Your task to perform on an android device: turn off improve location accuracy Image 0: 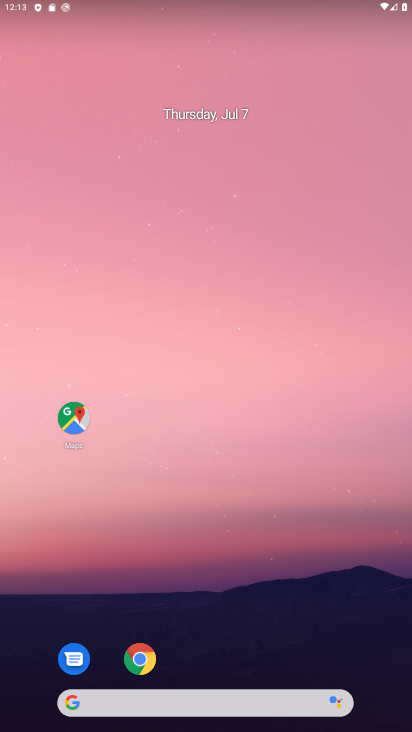
Step 0: drag from (252, 572) to (194, 106)
Your task to perform on an android device: turn off improve location accuracy Image 1: 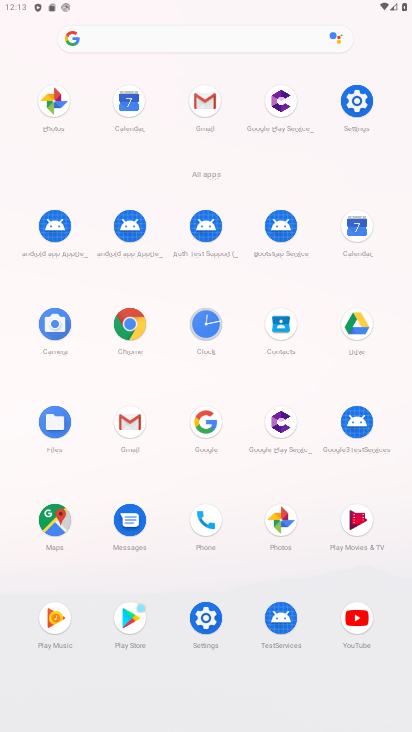
Step 1: click (357, 102)
Your task to perform on an android device: turn off improve location accuracy Image 2: 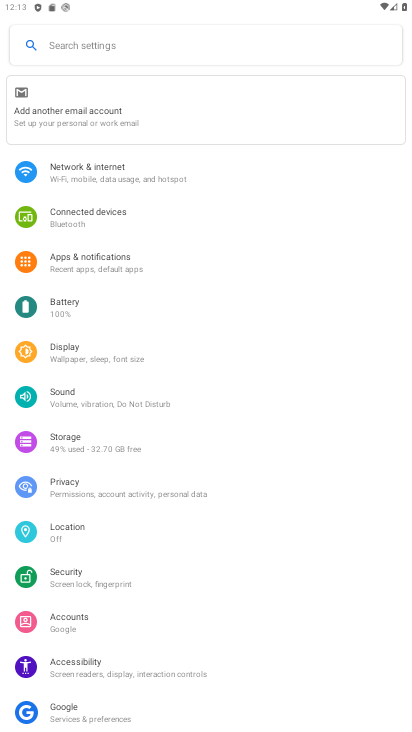
Step 2: click (61, 525)
Your task to perform on an android device: turn off improve location accuracy Image 3: 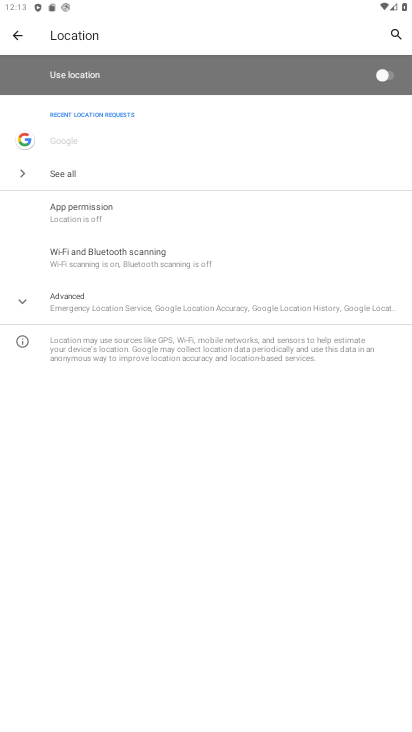
Step 3: click (46, 308)
Your task to perform on an android device: turn off improve location accuracy Image 4: 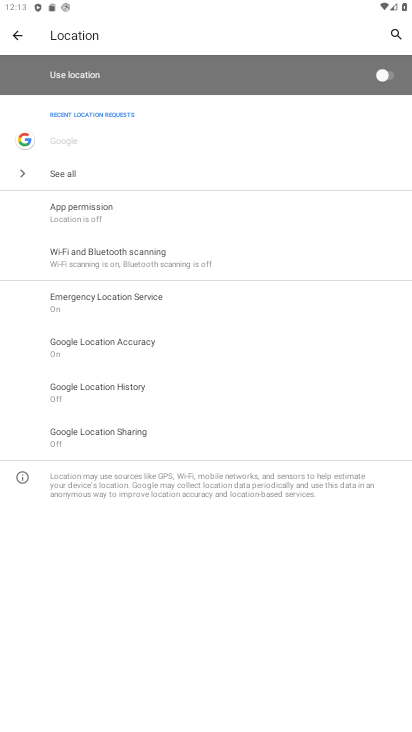
Step 4: click (116, 344)
Your task to perform on an android device: turn off improve location accuracy Image 5: 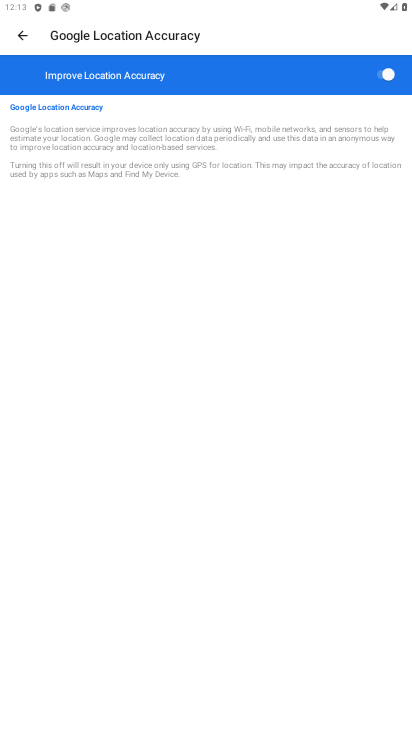
Step 5: click (388, 77)
Your task to perform on an android device: turn off improve location accuracy Image 6: 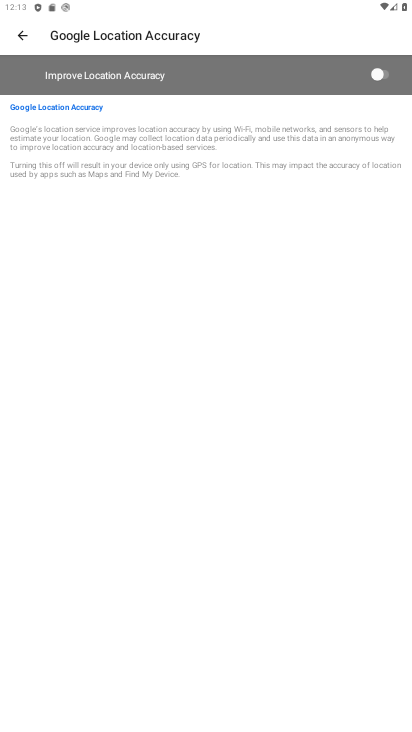
Step 6: task complete